Your task to perform on an android device: open app "Chime – Mobile Banking" (install if not already installed) and go to login screen Image 0: 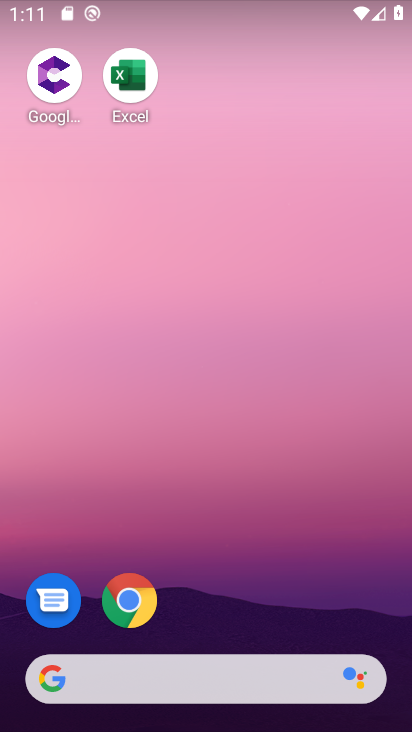
Step 0: drag from (330, 549) to (237, 171)
Your task to perform on an android device: open app "Chime – Mobile Banking" (install if not already installed) and go to login screen Image 1: 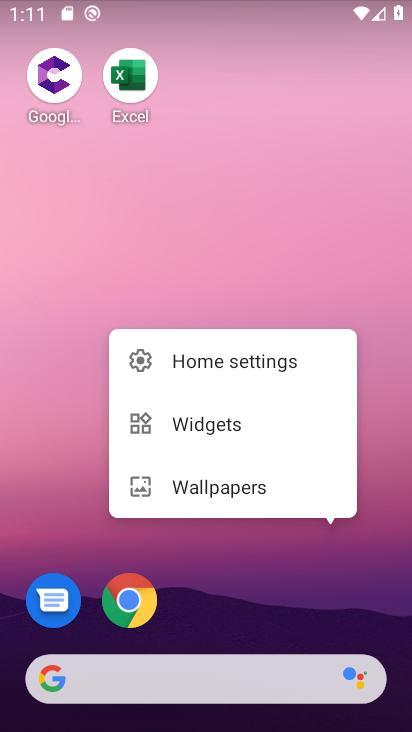
Step 1: click (290, 305)
Your task to perform on an android device: open app "Chime – Mobile Banking" (install if not already installed) and go to login screen Image 2: 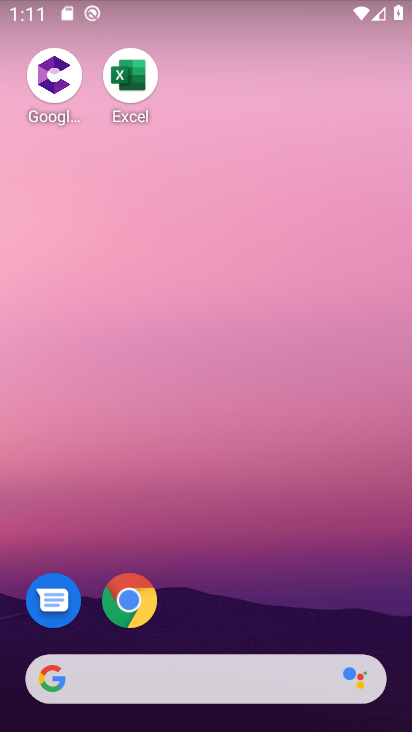
Step 2: drag from (316, 541) to (267, 193)
Your task to perform on an android device: open app "Chime – Mobile Banking" (install if not already installed) and go to login screen Image 3: 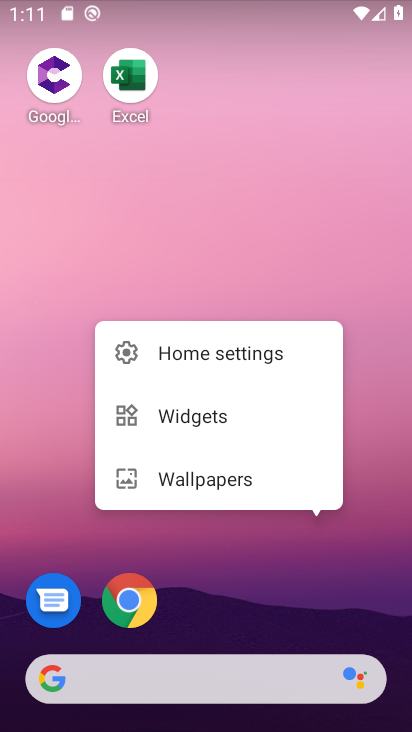
Step 3: click (325, 238)
Your task to perform on an android device: open app "Chime – Mobile Banking" (install if not already installed) and go to login screen Image 4: 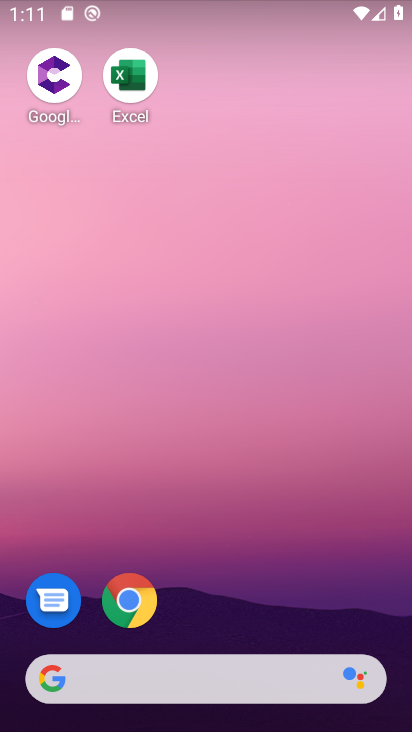
Step 4: drag from (207, 541) to (196, 130)
Your task to perform on an android device: open app "Chime – Mobile Banking" (install if not already installed) and go to login screen Image 5: 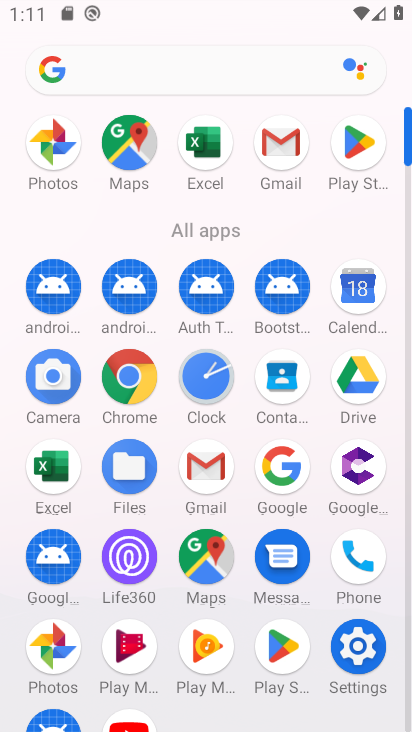
Step 5: click (289, 652)
Your task to perform on an android device: open app "Chime – Mobile Banking" (install if not already installed) and go to login screen Image 6: 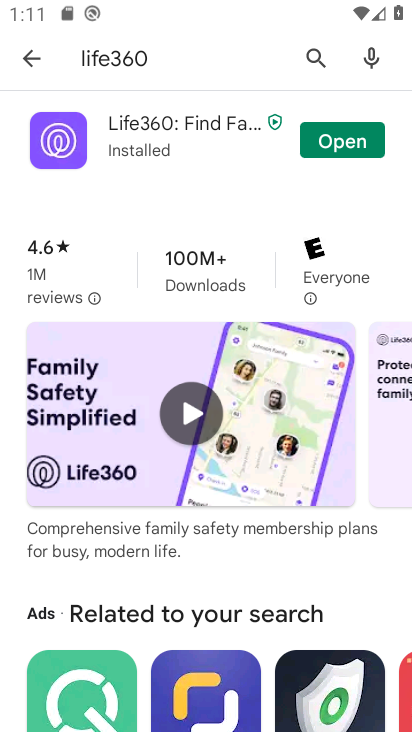
Step 6: click (313, 65)
Your task to perform on an android device: open app "Chime – Mobile Banking" (install if not already installed) and go to login screen Image 7: 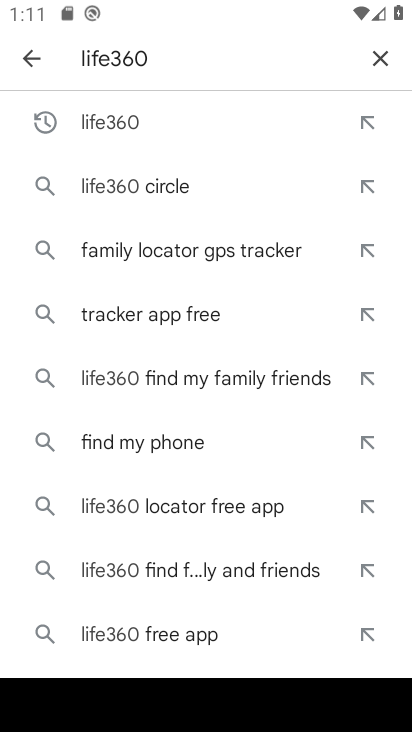
Step 7: click (390, 59)
Your task to perform on an android device: open app "Chime – Mobile Banking" (install if not already installed) and go to login screen Image 8: 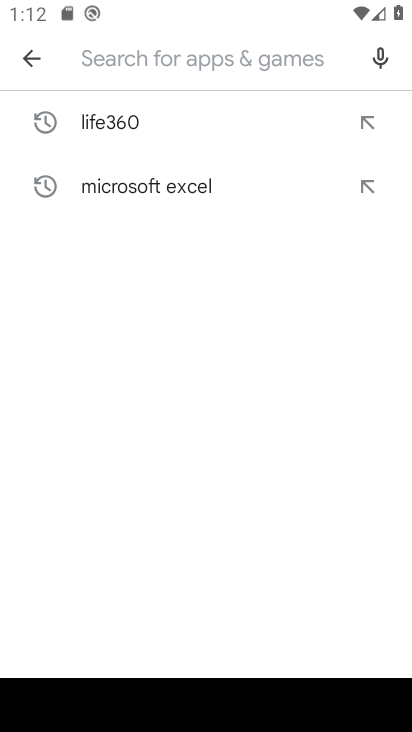
Step 8: type "chime"
Your task to perform on an android device: open app "Chime – Mobile Banking" (install if not already installed) and go to login screen Image 9: 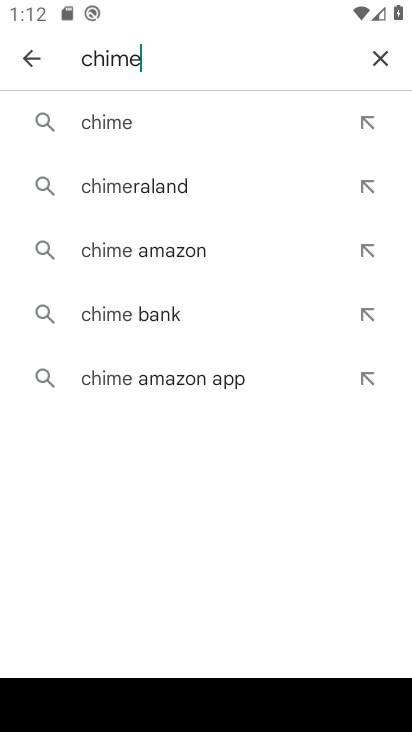
Step 9: click (165, 117)
Your task to perform on an android device: open app "Chime – Mobile Banking" (install if not already installed) and go to login screen Image 10: 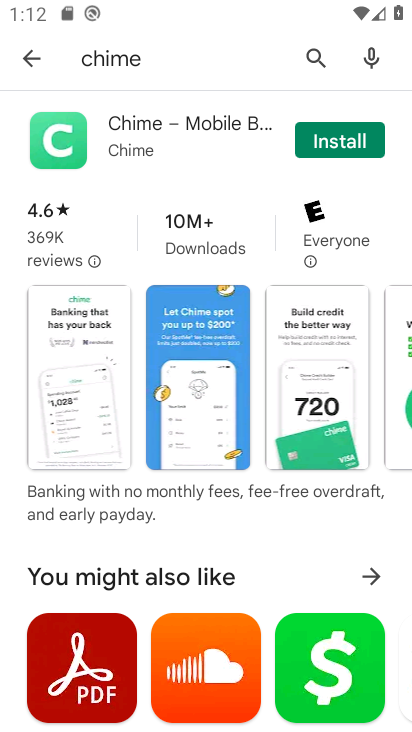
Step 10: click (326, 138)
Your task to perform on an android device: open app "Chime – Mobile Banking" (install if not already installed) and go to login screen Image 11: 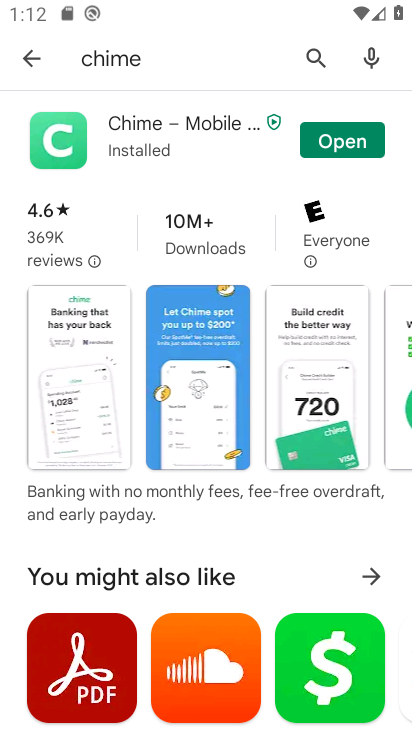
Step 11: click (352, 138)
Your task to perform on an android device: open app "Chime – Mobile Banking" (install if not already installed) and go to login screen Image 12: 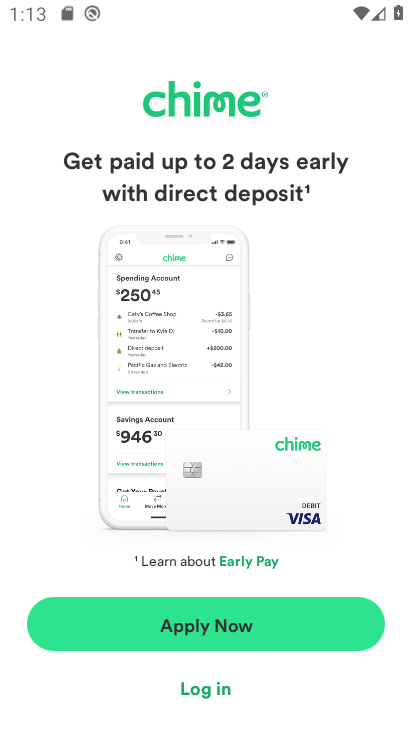
Step 12: click (209, 683)
Your task to perform on an android device: open app "Chime – Mobile Banking" (install if not already installed) and go to login screen Image 13: 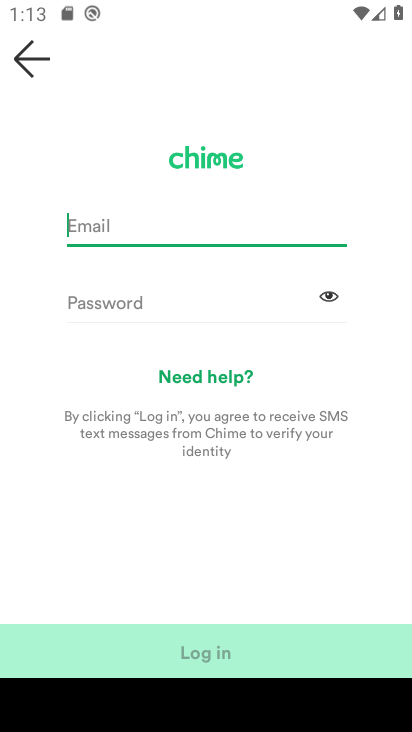
Step 13: task complete